Your task to perform on an android device: Open CNN.com Image 0: 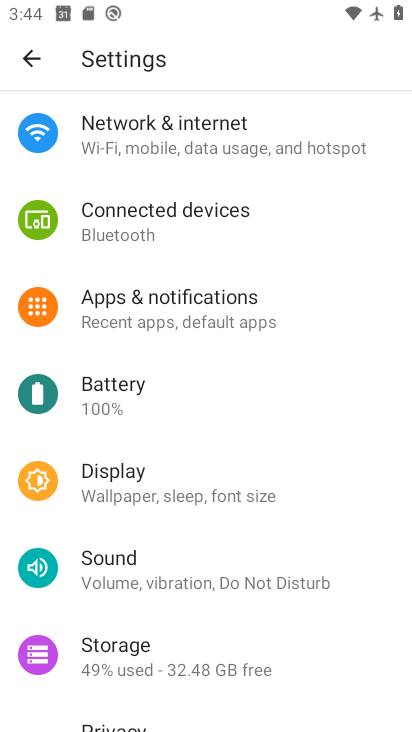
Step 0: press home button
Your task to perform on an android device: Open CNN.com Image 1: 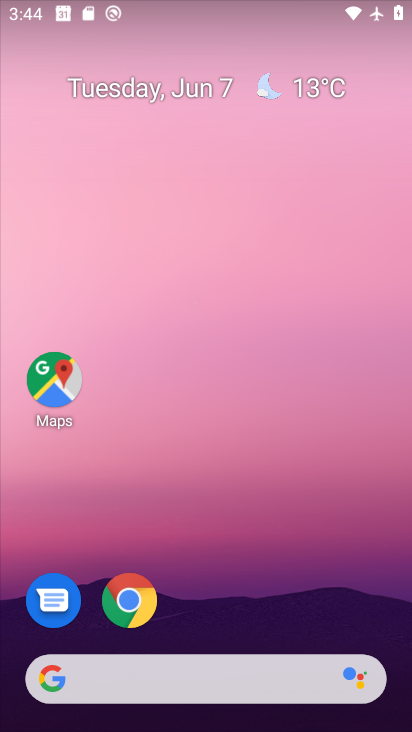
Step 1: click (129, 600)
Your task to perform on an android device: Open CNN.com Image 2: 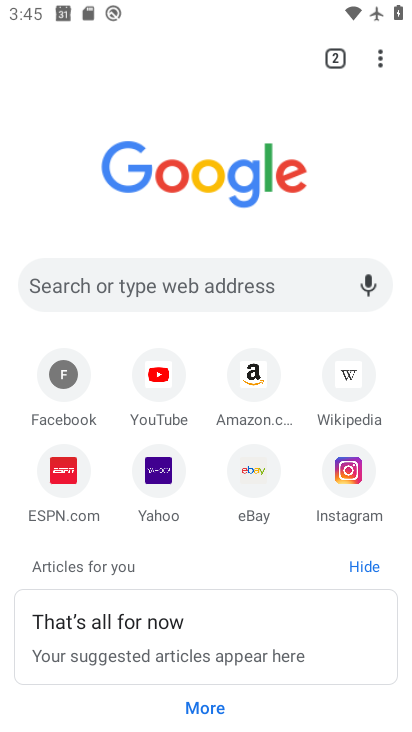
Step 2: click (273, 287)
Your task to perform on an android device: Open CNN.com Image 3: 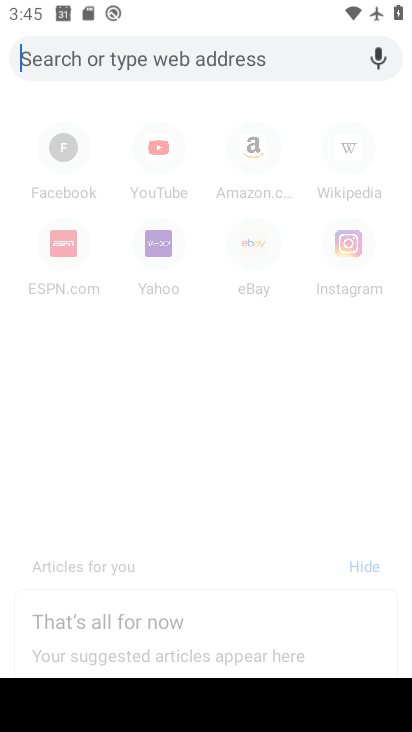
Step 3: type "cnn.com"
Your task to perform on an android device: Open CNN.com Image 4: 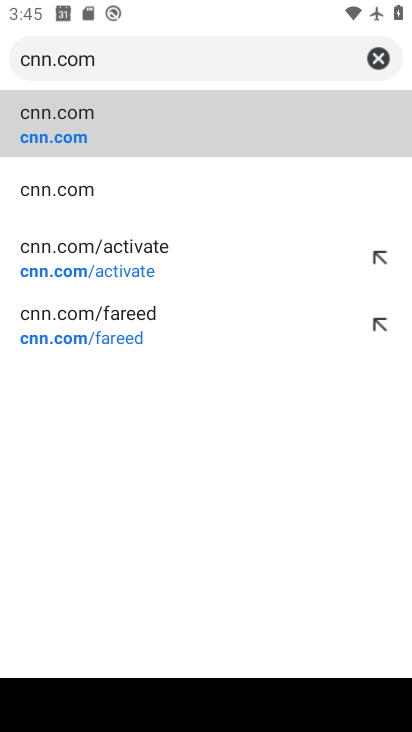
Step 4: click (61, 146)
Your task to perform on an android device: Open CNN.com Image 5: 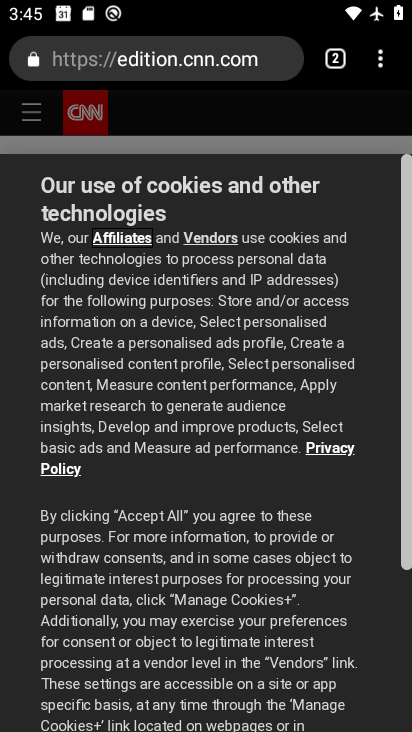
Step 5: task complete